Your task to perform on an android device: Open the Play Movies app and select the watchlist tab. Image 0: 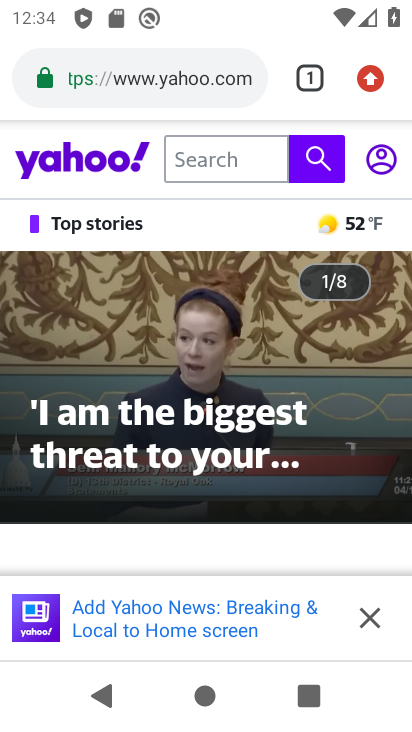
Step 0: press home button
Your task to perform on an android device: Open the Play Movies app and select the watchlist tab. Image 1: 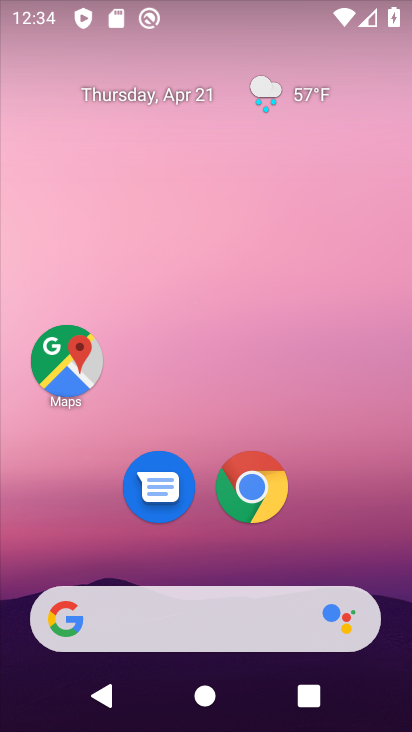
Step 1: drag from (389, 538) to (384, 163)
Your task to perform on an android device: Open the Play Movies app and select the watchlist tab. Image 2: 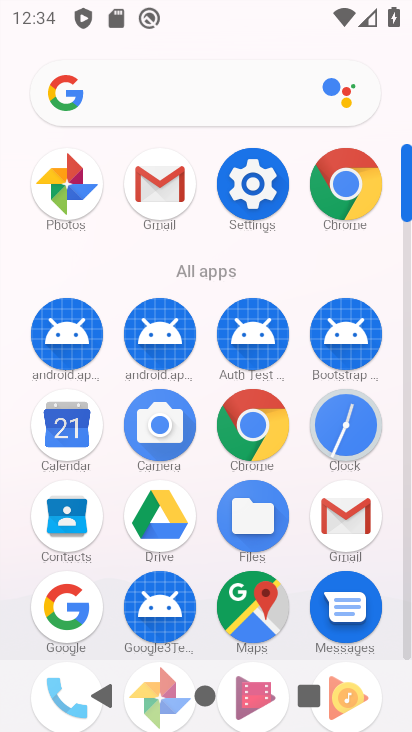
Step 2: drag from (381, 566) to (393, 301)
Your task to perform on an android device: Open the Play Movies app and select the watchlist tab. Image 3: 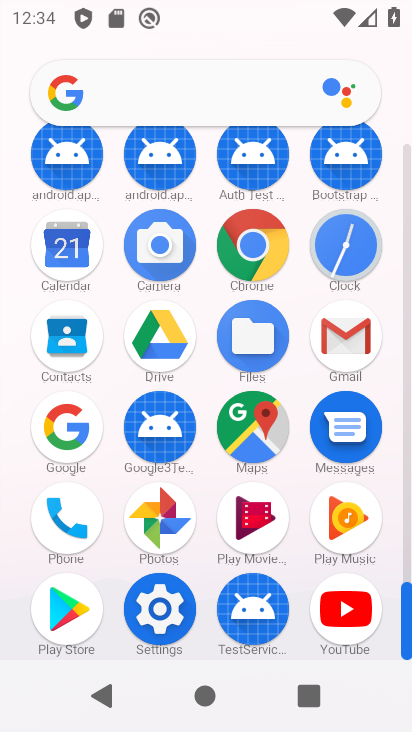
Step 3: click (244, 521)
Your task to perform on an android device: Open the Play Movies app and select the watchlist tab. Image 4: 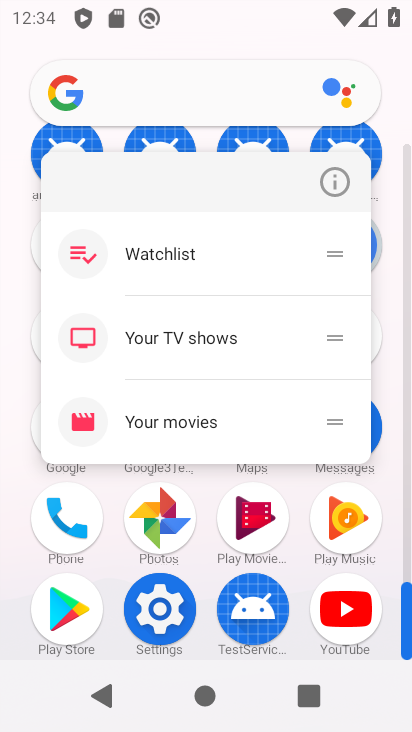
Step 4: click (244, 521)
Your task to perform on an android device: Open the Play Movies app and select the watchlist tab. Image 5: 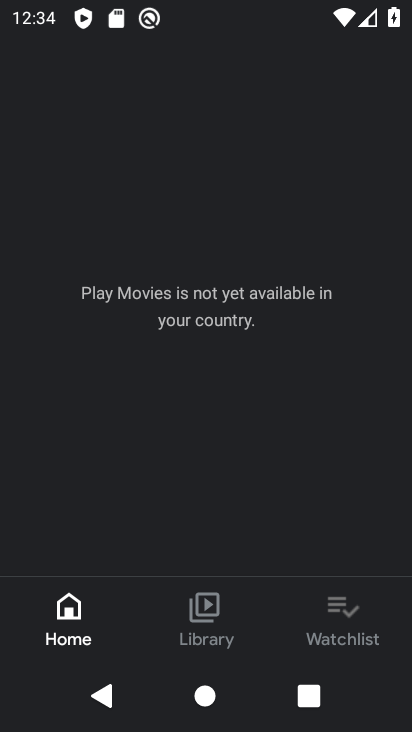
Step 5: click (346, 616)
Your task to perform on an android device: Open the Play Movies app and select the watchlist tab. Image 6: 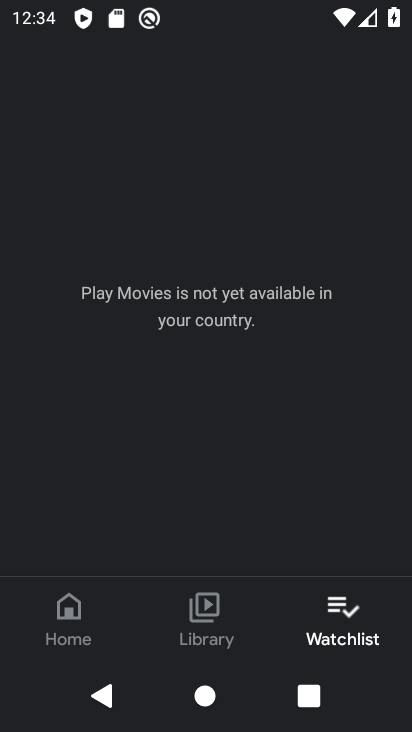
Step 6: task complete